Your task to perform on an android device: Open Chrome and go to settings Image 0: 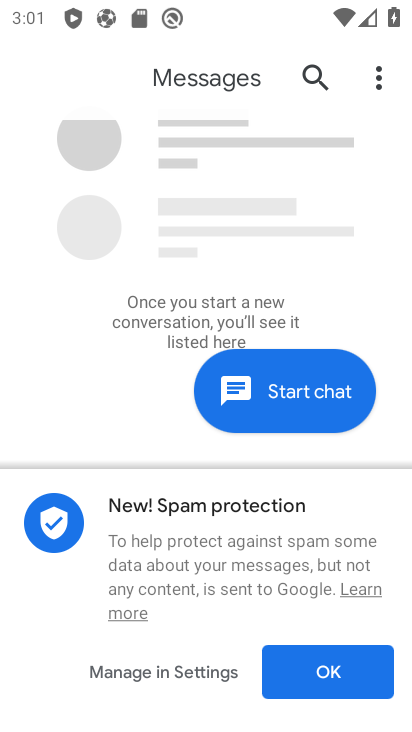
Step 0: press home button
Your task to perform on an android device: Open Chrome and go to settings Image 1: 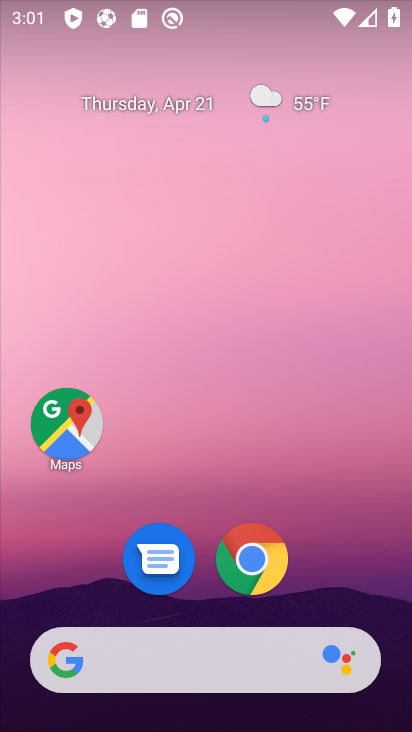
Step 1: click (259, 575)
Your task to perform on an android device: Open Chrome and go to settings Image 2: 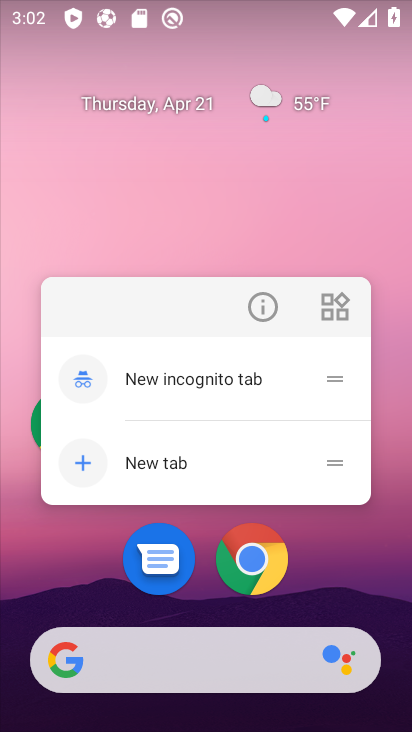
Step 2: click (271, 562)
Your task to perform on an android device: Open Chrome and go to settings Image 3: 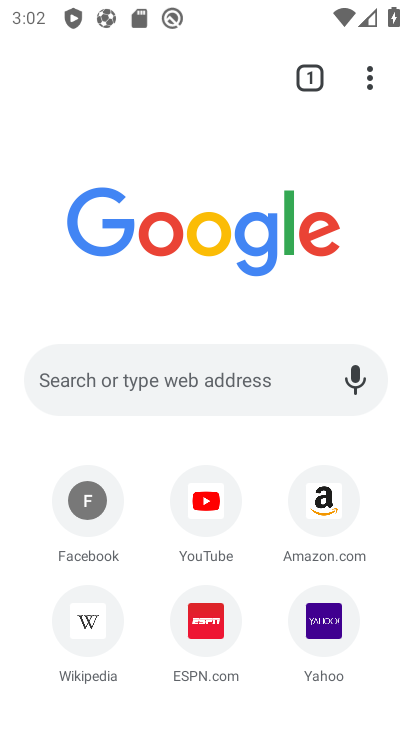
Step 3: click (379, 99)
Your task to perform on an android device: Open Chrome and go to settings Image 4: 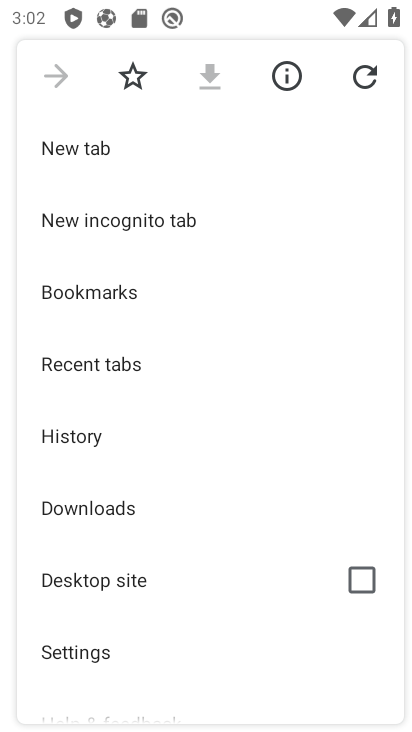
Step 4: drag from (116, 644) to (112, 486)
Your task to perform on an android device: Open Chrome and go to settings Image 5: 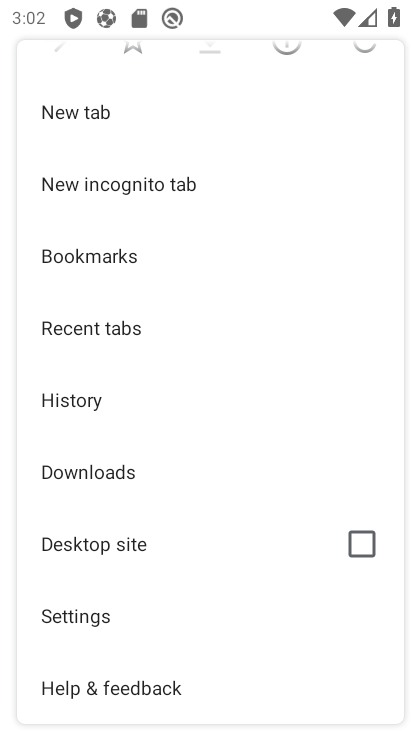
Step 5: click (101, 619)
Your task to perform on an android device: Open Chrome and go to settings Image 6: 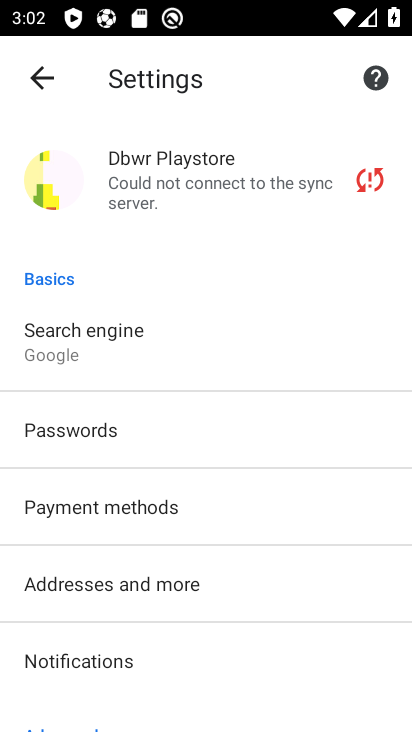
Step 6: task complete